Your task to perform on an android device: turn off smart reply in the gmail app Image 0: 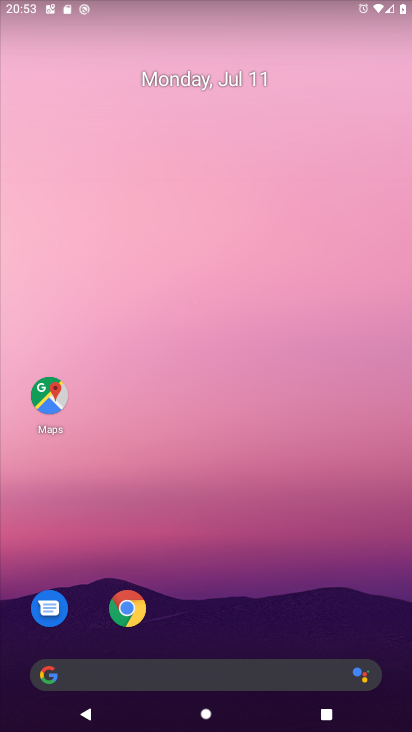
Step 0: drag from (268, 620) to (305, 230)
Your task to perform on an android device: turn off smart reply in the gmail app Image 1: 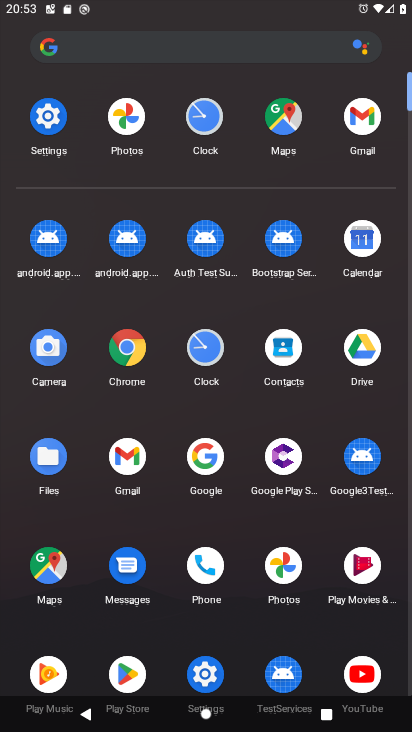
Step 1: click (345, 141)
Your task to perform on an android device: turn off smart reply in the gmail app Image 2: 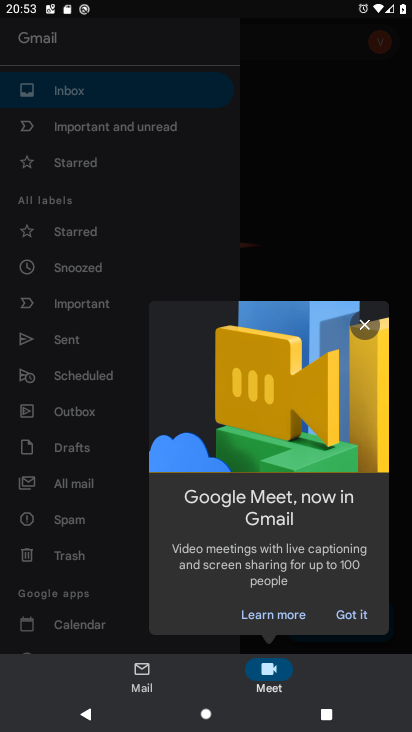
Step 2: click (362, 331)
Your task to perform on an android device: turn off smart reply in the gmail app Image 3: 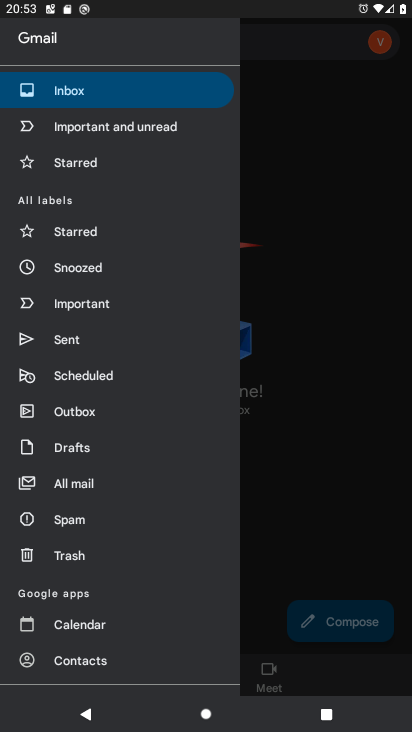
Step 3: drag from (114, 648) to (114, 413)
Your task to perform on an android device: turn off smart reply in the gmail app Image 4: 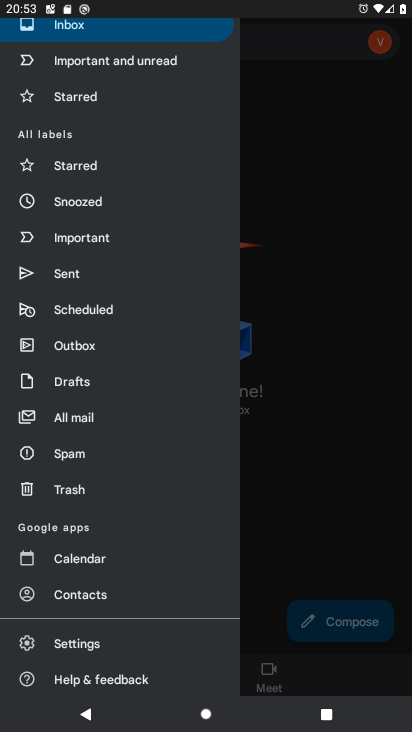
Step 4: click (101, 639)
Your task to perform on an android device: turn off smart reply in the gmail app Image 5: 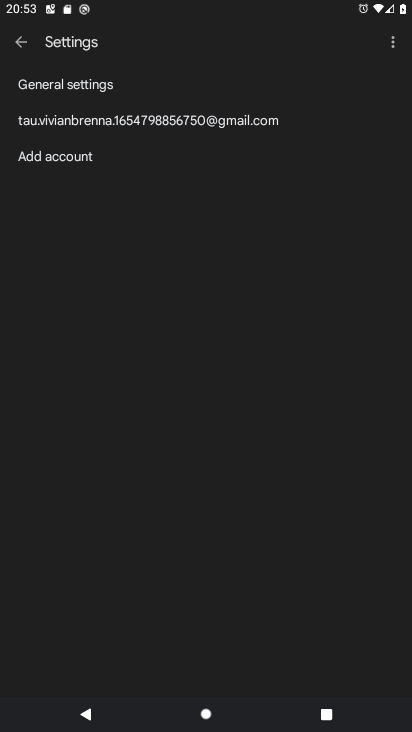
Step 5: click (43, 125)
Your task to perform on an android device: turn off smart reply in the gmail app Image 6: 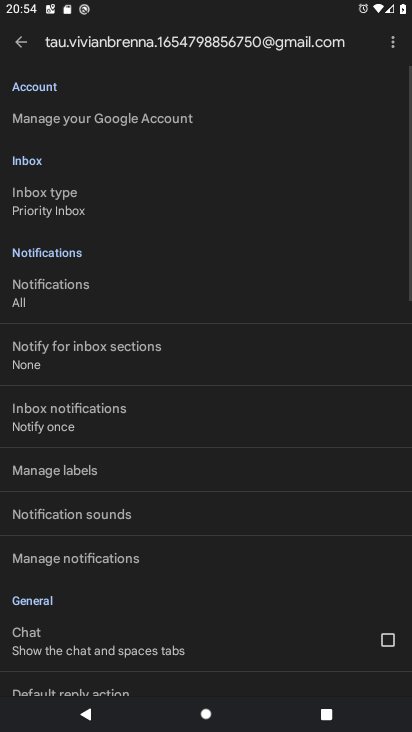
Step 6: drag from (153, 647) to (135, 74)
Your task to perform on an android device: turn off smart reply in the gmail app Image 7: 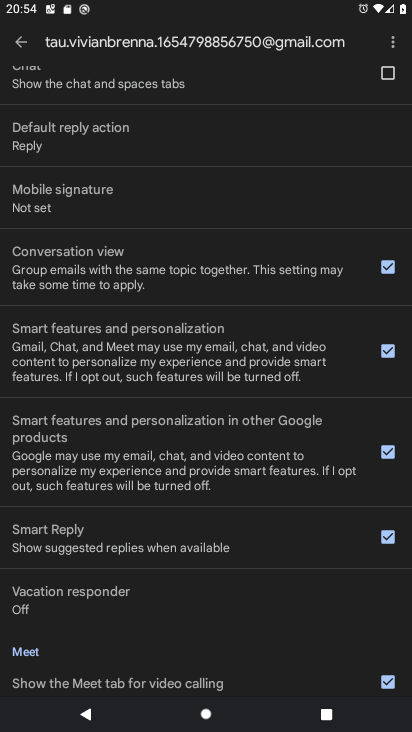
Step 7: drag from (202, 542) to (194, 342)
Your task to perform on an android device: turn off smart reply in the gmail app Image 8: 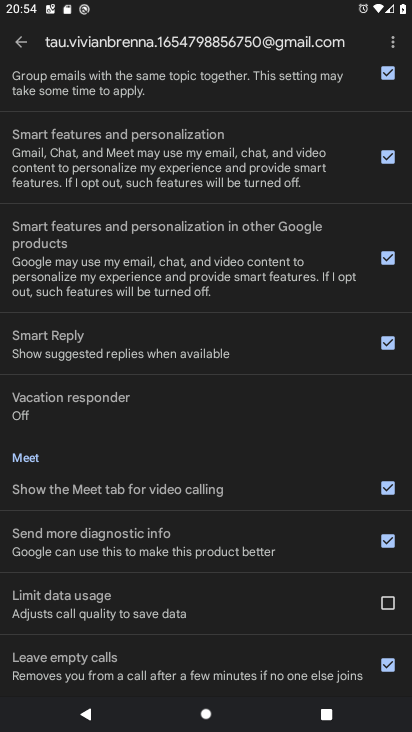
Step 8: drag from (193, 543) to (180, 283)
Your task to perform on an android device: turn off smart reply in the gmail app Image 9: 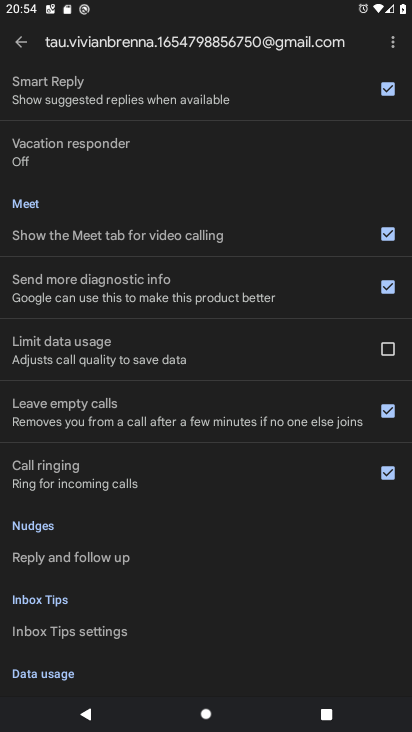
Step 9: drag from (231, 483) to (276, 292)
Your task to perform on an android device: turn off smart reply in the gmail app Image 10: 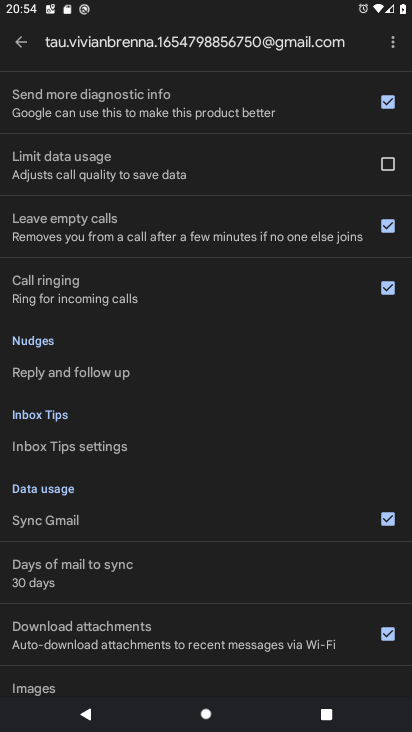
Step 10: drag from (177, 536) to (177, 706)
Your task to perform on an android device: turn off smart reply in the gmail app Image 11: 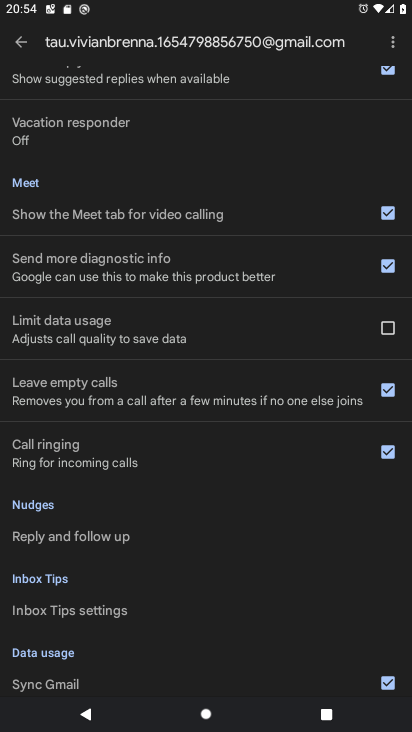
Step 11: drag from (166, 556) to (185, 203)
Your task to perform on an android device: turn off smart reply in the gmail app Image 12: 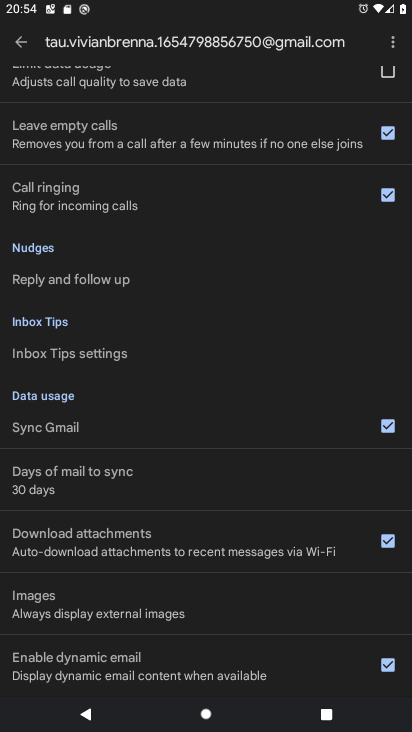
Step 12: click (177, 338)
Your task to perform on an android device: turn off smart reply in the gmail app Image 13: 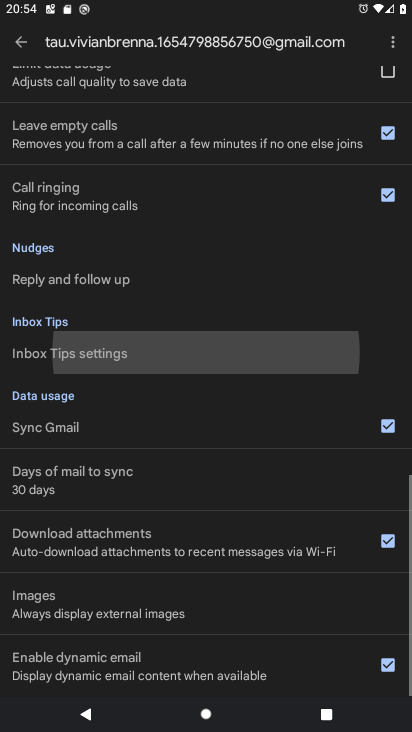
Step 13: drag from (177, 338) to (257, 703)
Your task to perform on an android device: turn off smart reply in the gmail app Image 14: 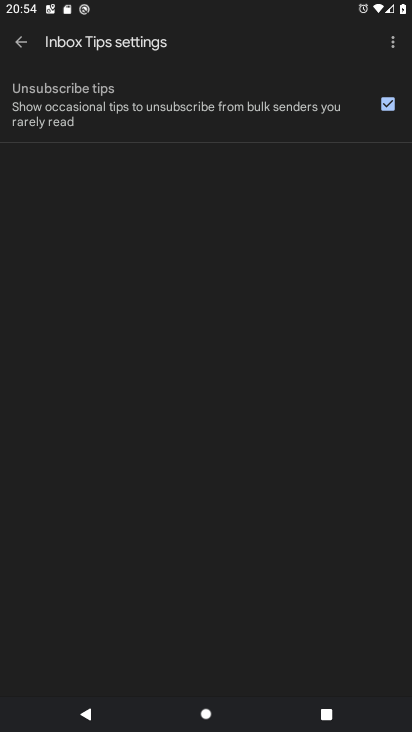
Step 14: click (28, 50)
Your task to perform on an android device: turn off smart reply in the gmail app Image 15: 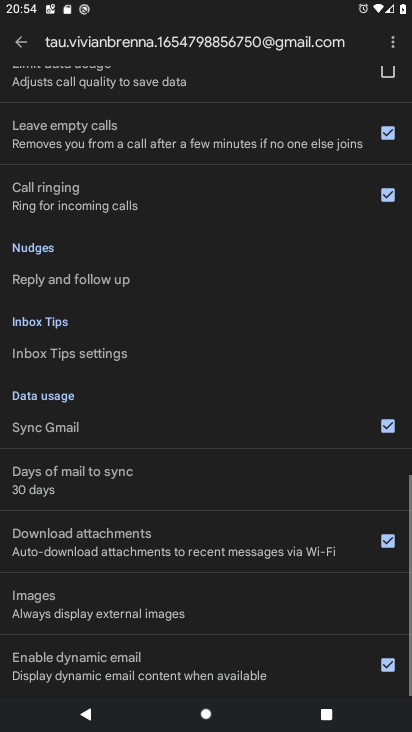
Step 15: task complete